Your task to perform on an android device: Open Yahoo.com Image 0: 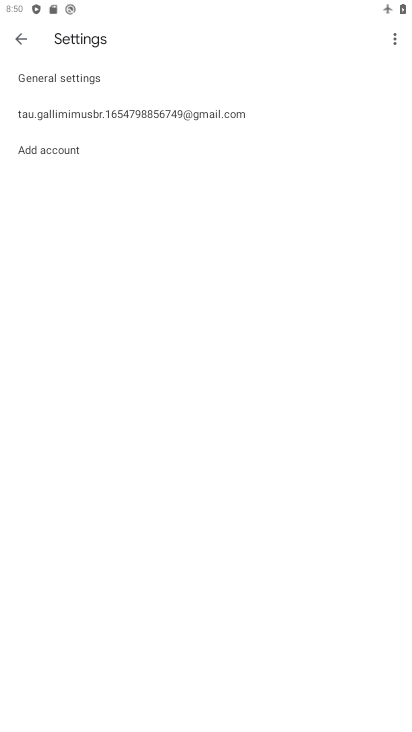
Step 0: press home button
Your task to perform on an android device: Open Yahoo.com Image 1: 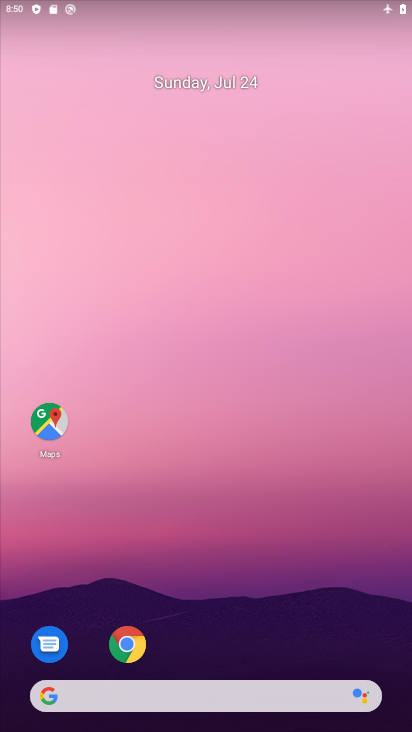
Step 1: click (118, 637)
Your task to perform on an android device: Open Yahoo.com Image 2: 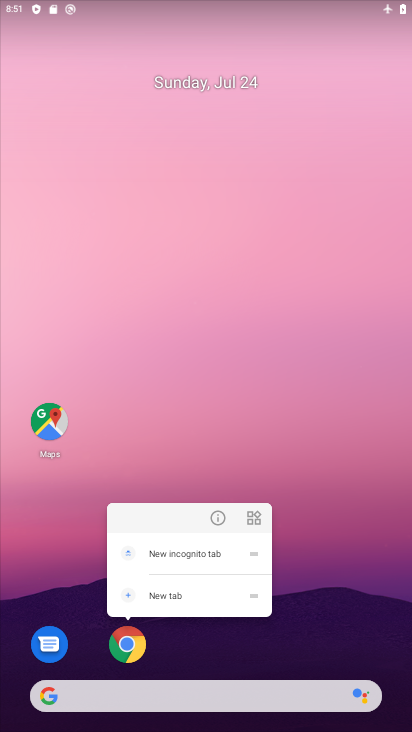
Step 2: click (129, 648)
Your task to perform on an android device: Open Yahoo.com Image 3: 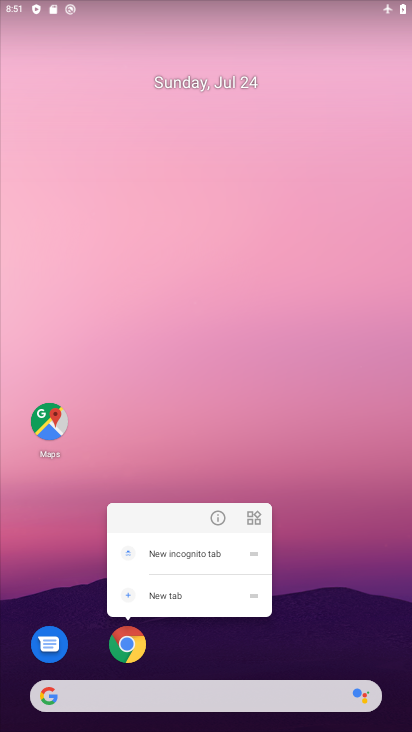
Step 3: click (129, 648)
Your task to perform on an android device: Open Yahoo.com Image 4: 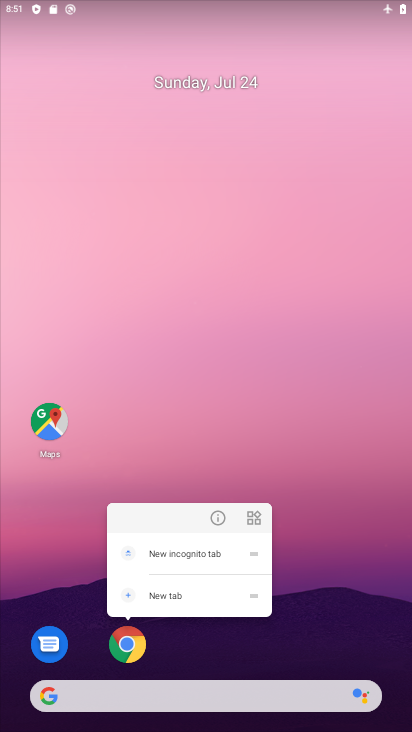
Step 4: click (129, 648)
Your task to perform on an android device: Open Yahoo.com Image 5: 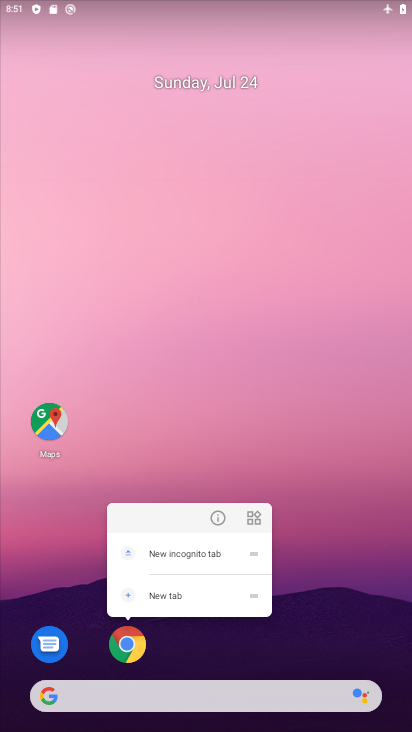
Step 5: click (129, 648)
Your task to perform on an android device: Open Yahoo.com Image 6: 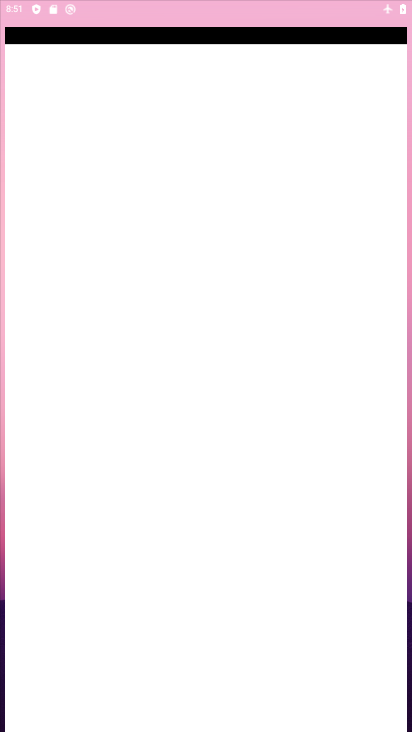
Step 6: click (145, 316)
Your task to perform on an android device: Open Yahoo.com Image 7: 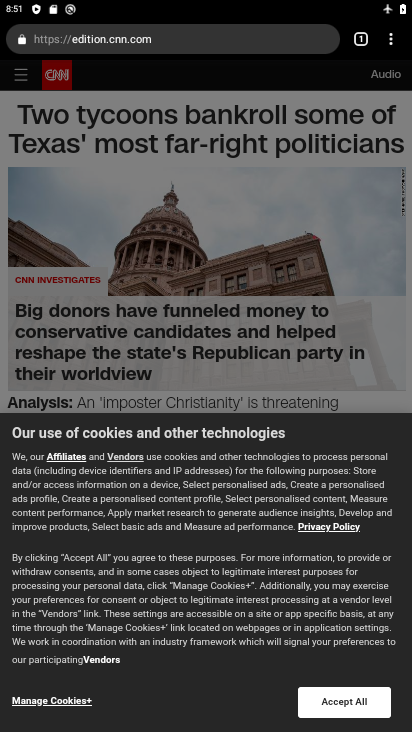
Step 7: click (184, 28)
Your task to perform on an android device: Open Yahoo.com Image 8: 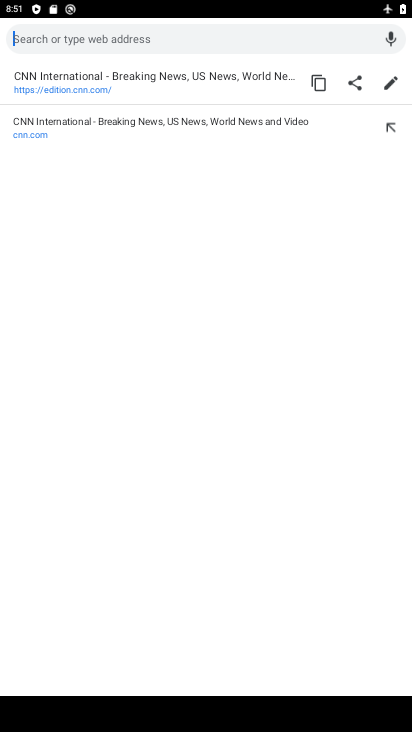
Step 8: type "Yahoo.com"
Your task to perform on an android device: Open Yahoo.com Image 9: 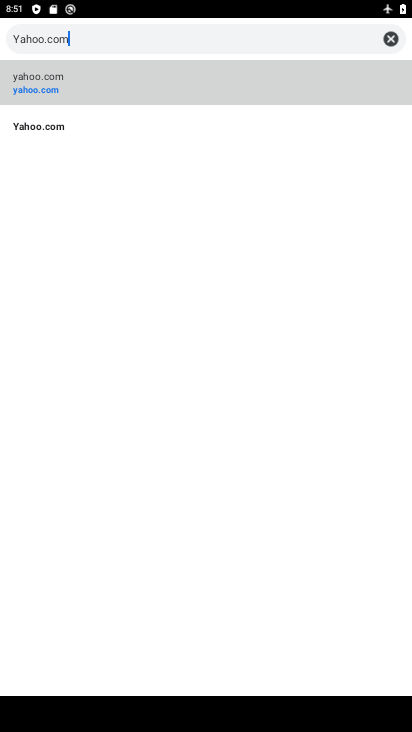
Step 9: click (37, 88)
Your task to perform on an android device: Open Yahoo.com Image 10: 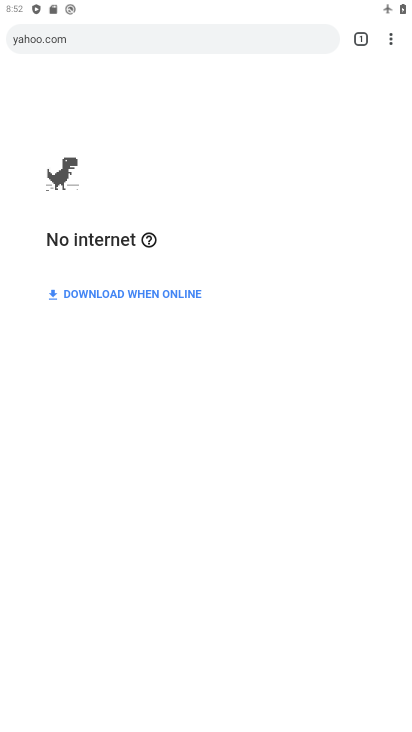
Step 10: drag from (287, 9) to (352, 474)
Your task to perform on an android device: Open Yahoo.com Image 11: 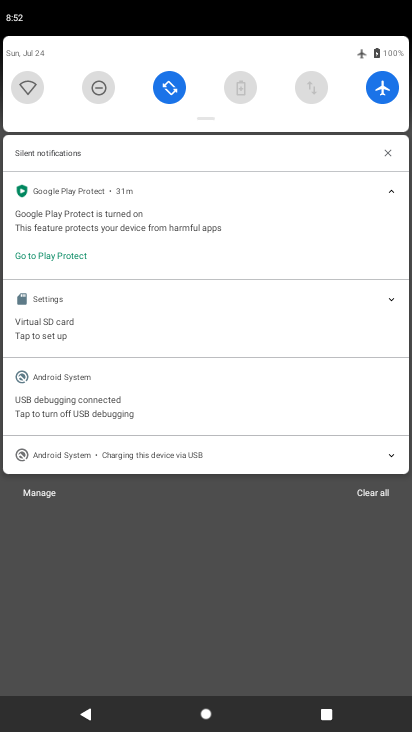
Step 11: click (369, 82)
Your task to perform on an android device: Open Yahoo.com Image 12: 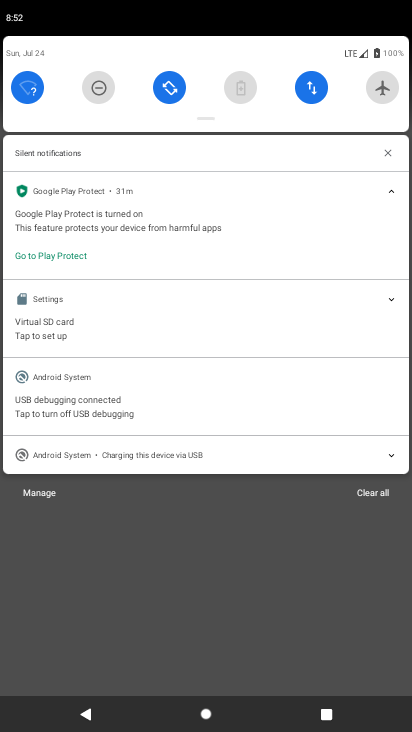
Step 12: click (258, 558)
Your task to perform on an android device: Open Yahoo.com Image 13: 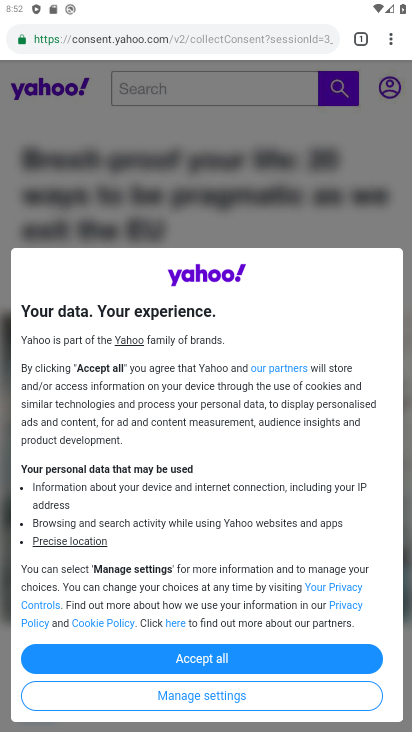
Step 13: click (229, 667)
Your task to perform on an android device: Open Yahoo.com Image 14: 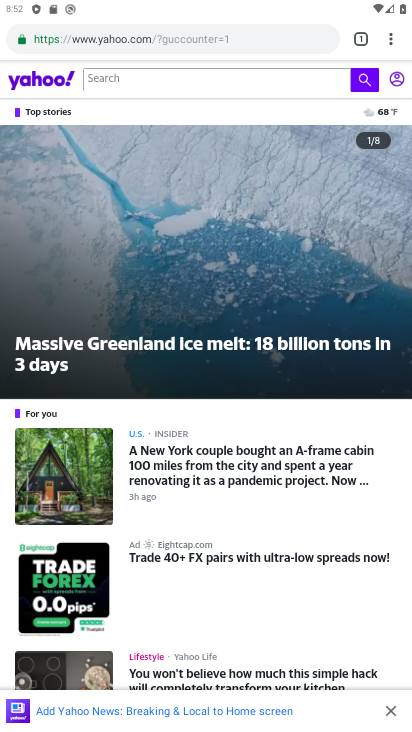
Step 14: task complete